Your task to perform on an android device: set an alarm Image 0: 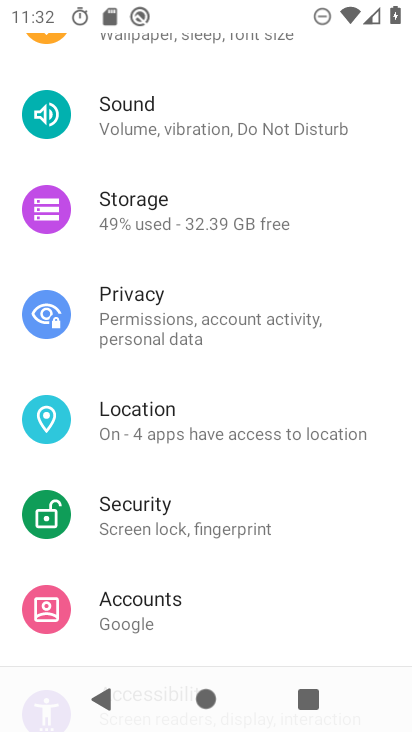
Step 0: press home button
Your task to perform on an android device: set an alarm Image 1: 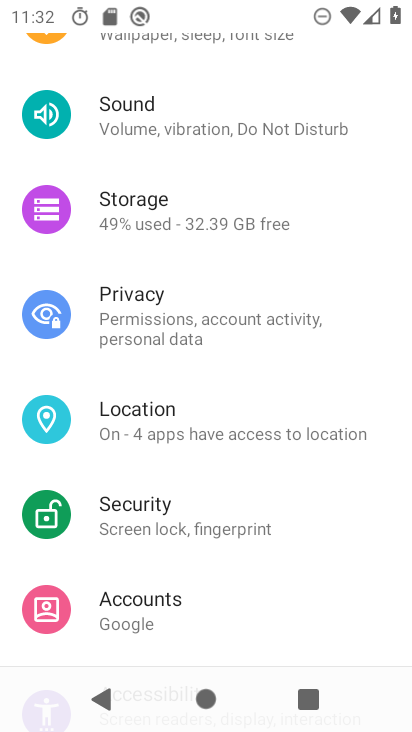
Step 1: press home button
Your task to perform on an android device: set an alarm Image 2: 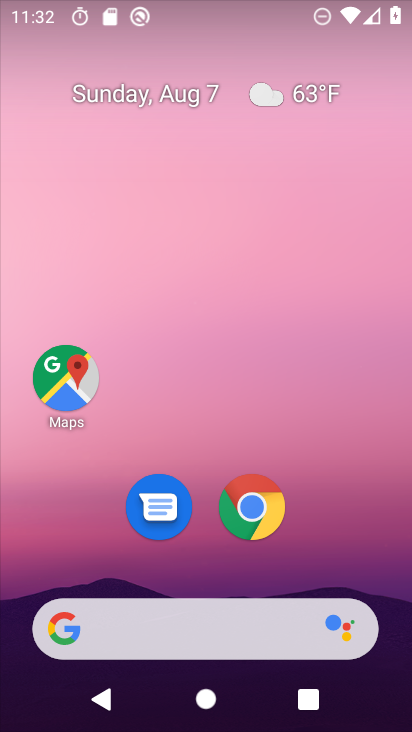
Step 2: drag from (336, 536) to (277, 140)
Your task to perform on an android device: set an alarm Image 3: 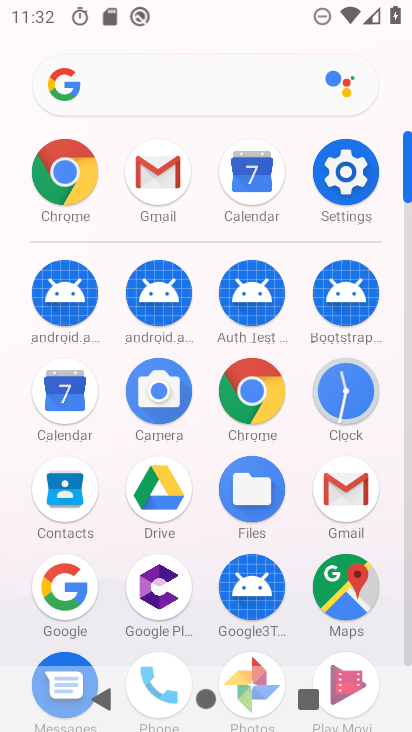
Step 3: click (362, 387)
Your task to perform on an android device: set an alarm Image 4: 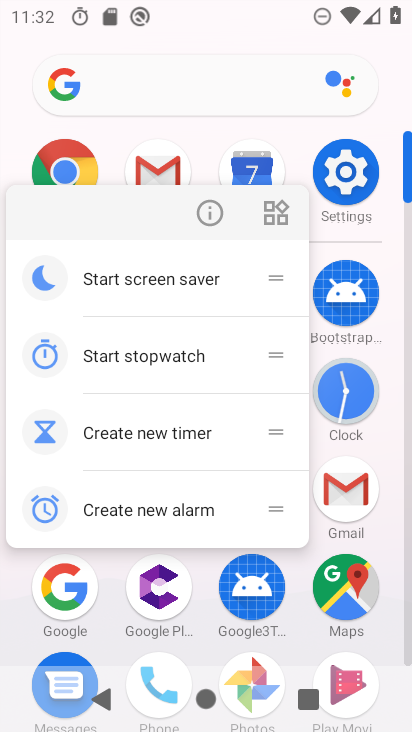
Step 4: click (342, 398)
Your task to perform on an android device: set an alarm Image 5: 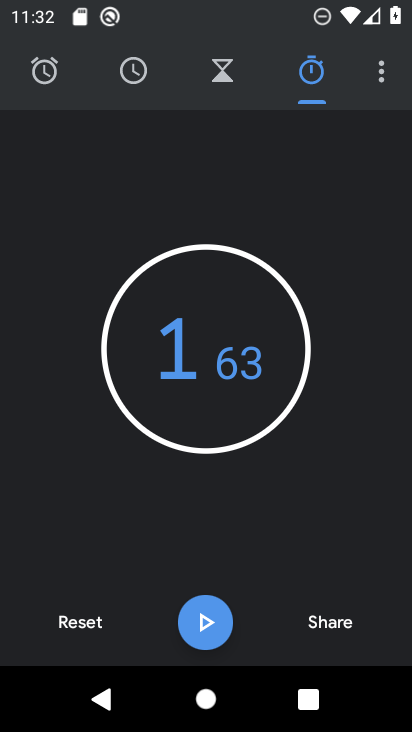
Step 5: click (56, 76)
Your task to perform on an android device: set an alarm Image 6: 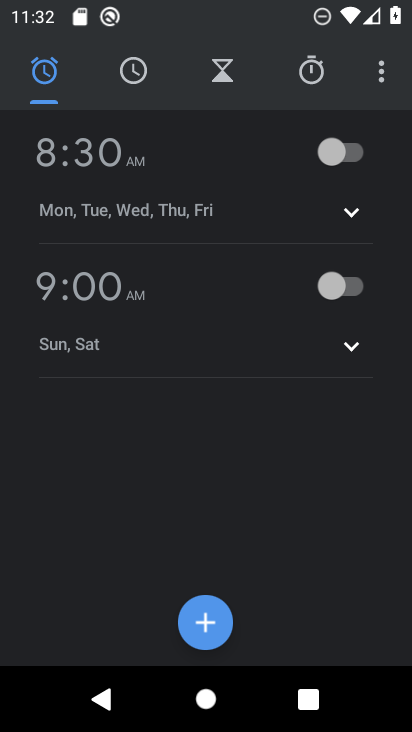
Step 6: click (189, 632)
Your task to perform on an android device: set an alarm Image 7: 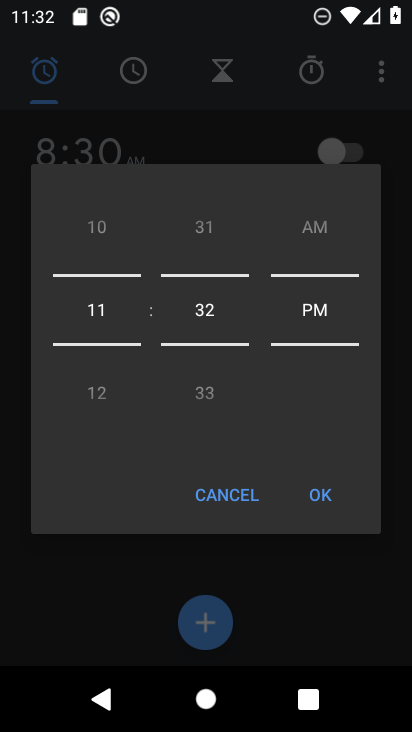
Step 7: click (326, 503)
Your task to perform on an android device: set an alarm Image 8: 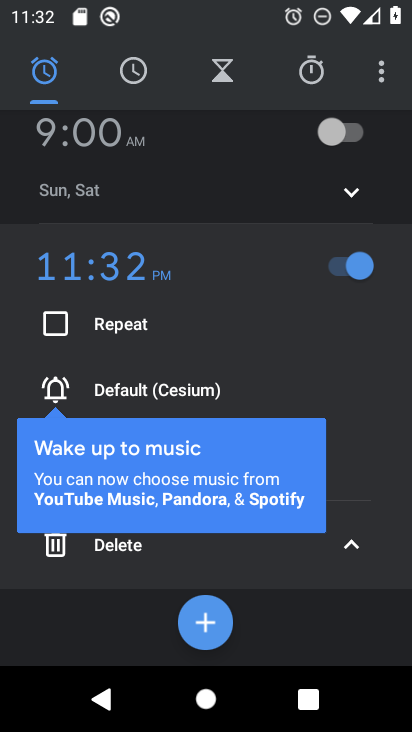
Step 8: task complete